Your task to perform on an android device: change timer sound Image 0: 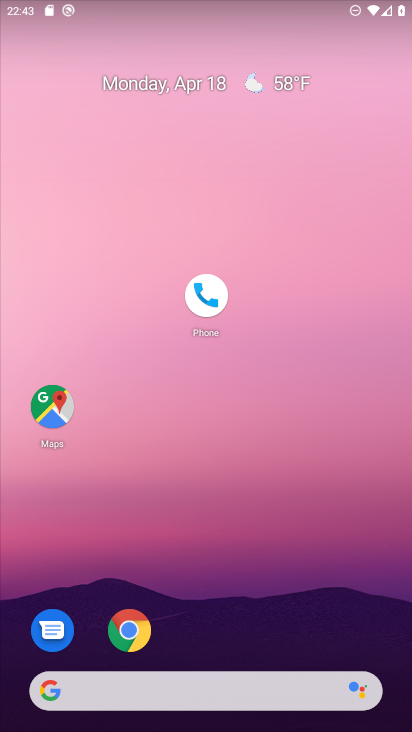
Step 0: drag from (289, 555) to (259, 219)
Your task to perform on an android device: change timer sound Image 1: 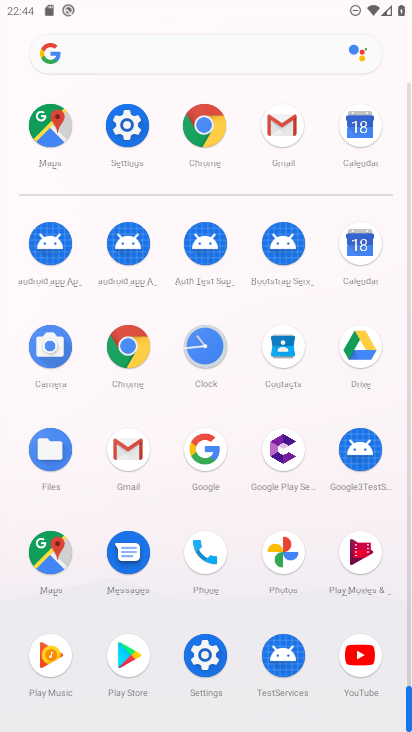
Step 1: click (204, 341)
Your task to perform on an android device: change timer sound Image 2: 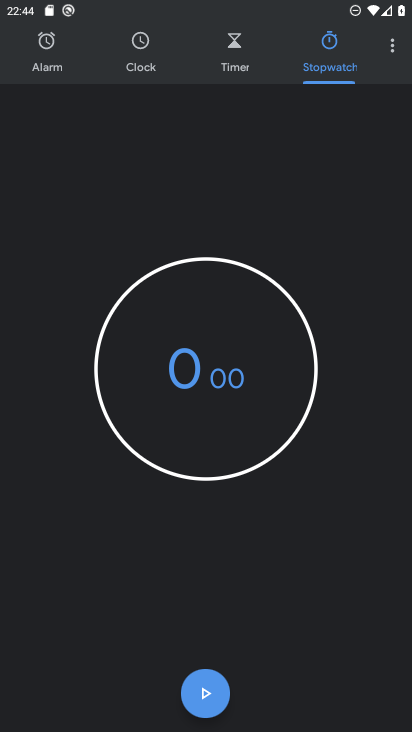
Step 2: click (398, 43)
Your task to perform on an android device: change timer sound Image 3: 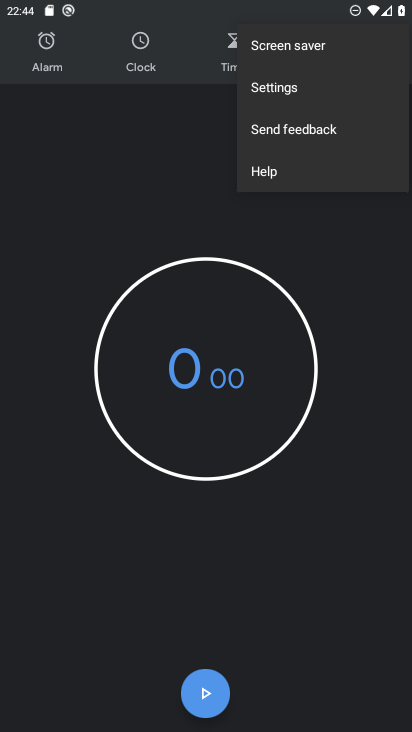
Step 3: click (269, 95)
Your task to perform on an android device: change timer sound Image 4: 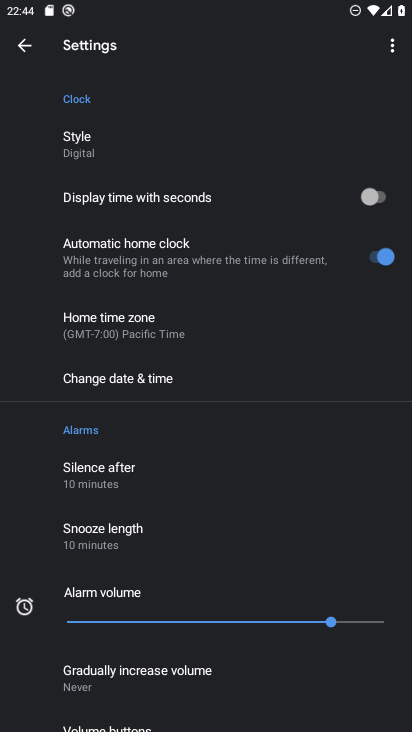
Step 4: drag from (328, 554) to (339, 218)
Your task to perform on an android device: change timer sound Image 5: 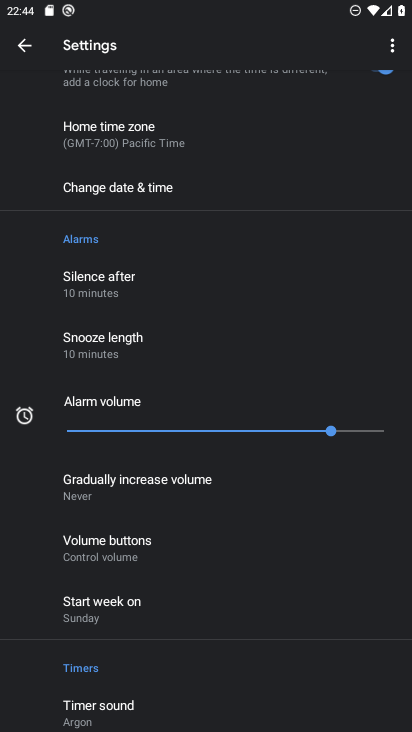
Step 5: click (86, 709)
Your task to perform on an android device: change timer sound Image 6: 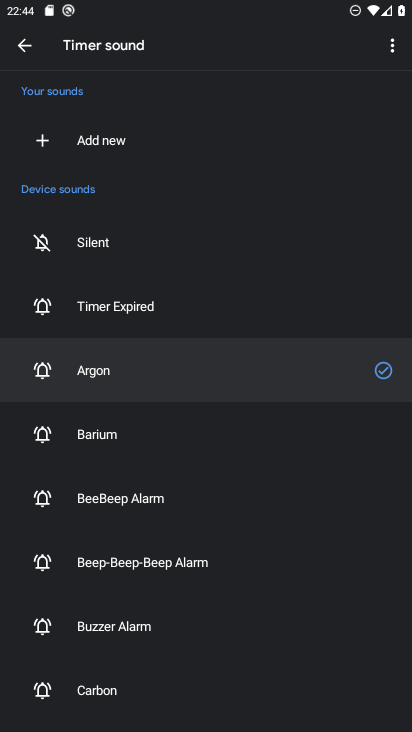
Step 6: click (122, 319)
Your task to perform on an android device: change timer sound Image 7: 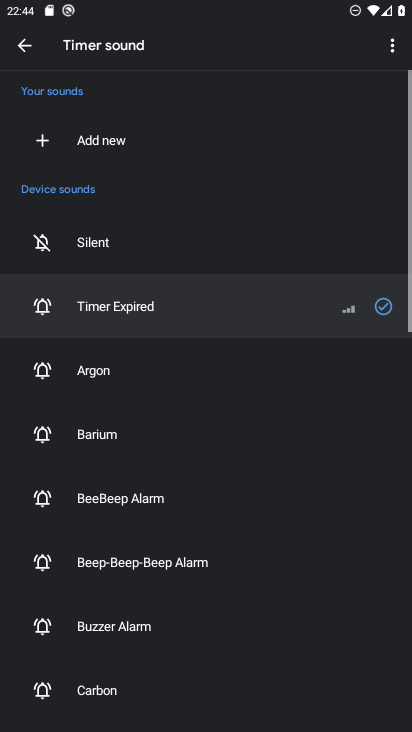
Step 7: task complete